Your task to perform on an android device: Open network settings Image 0: 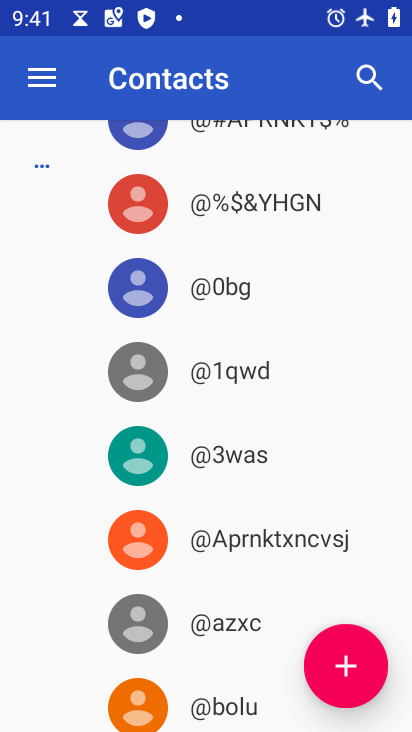
Step 0: press back button
Your task to perform on an android device: Open network settings Image 1: 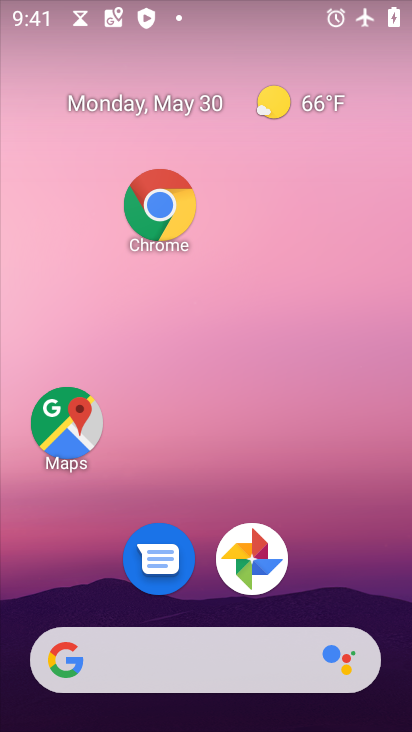
Step 1: drag from (249, 643) to (209, 61)
Your task to perform on an android device: Open network settings Image 2: 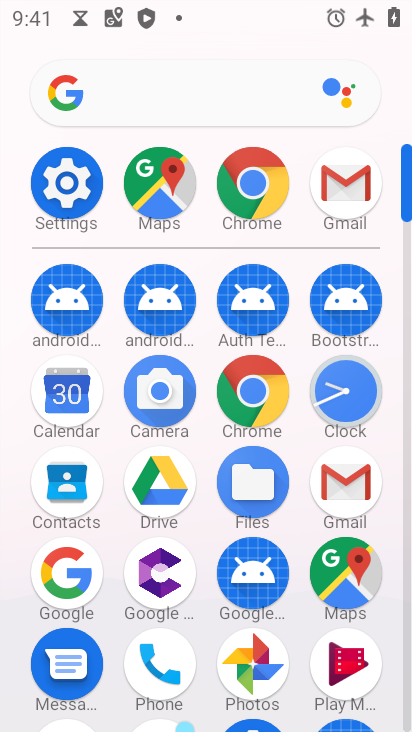
Step 2: click (67, 200)
Your task to perform on an android device: Open network settings Image 3: 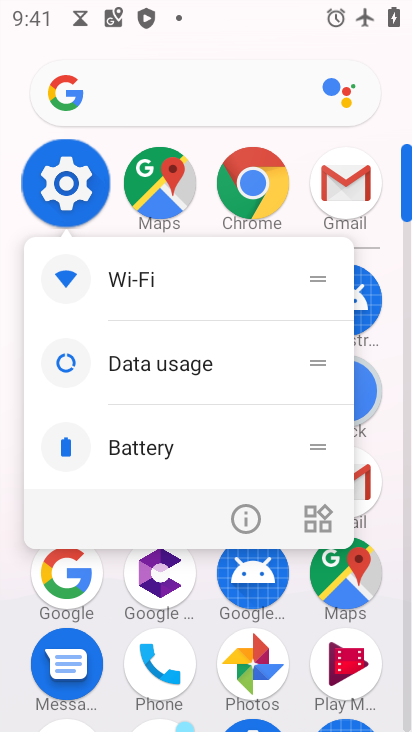
Step 3: click (70, 196)
Your task to perform on an android device: Open network settings Image 4: 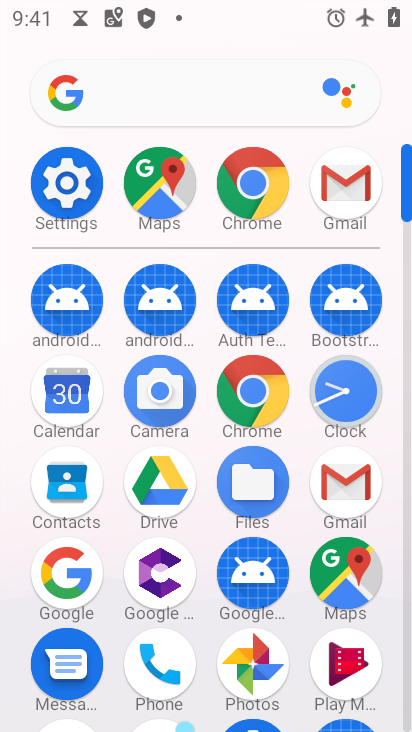
Step 4: click (71, 195)
Your task to perform on an android device: Open network settings Image 5: 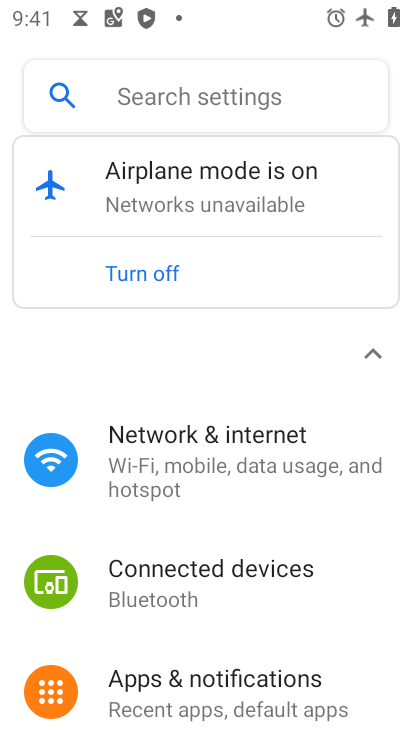
Step 5: click (211, 462)
Your task to perform on an android device: Open network settings Image 6: 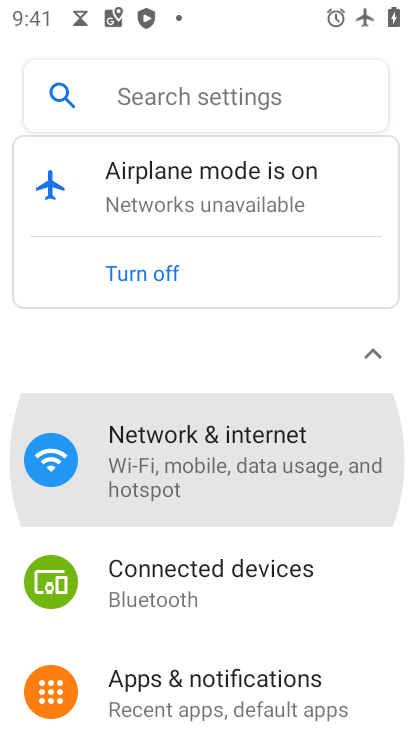
Step 6: click (211, 462)
Your task to perform on an android device: Open network settings Image 7: 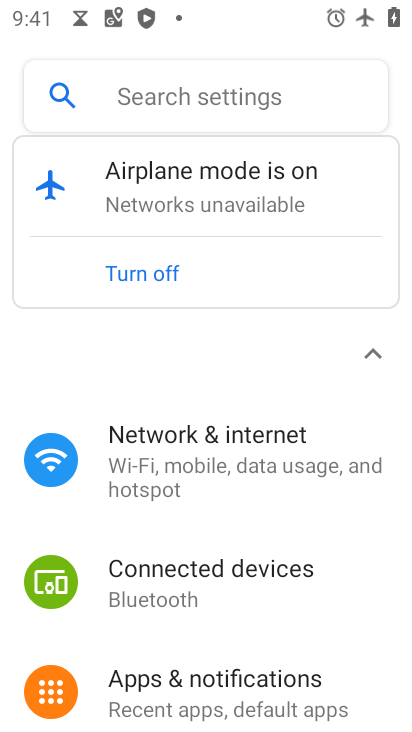
Step 7: click (218, 451)
Your task to perform on an android device: Open network settings Image 8: 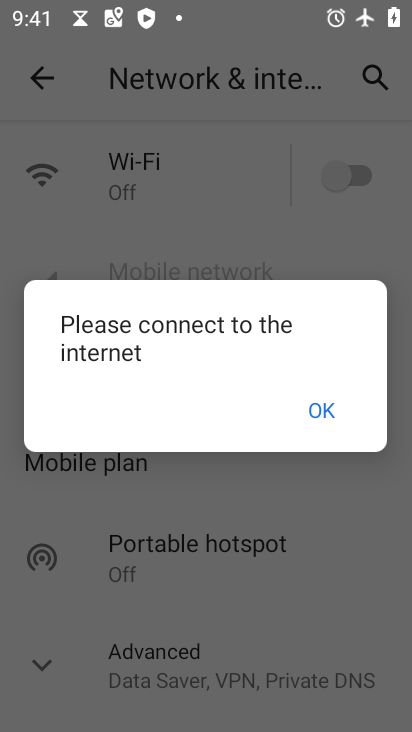
Step 8: click (316, 406)
Your task to perform on an android device: Open network settings Image 9: 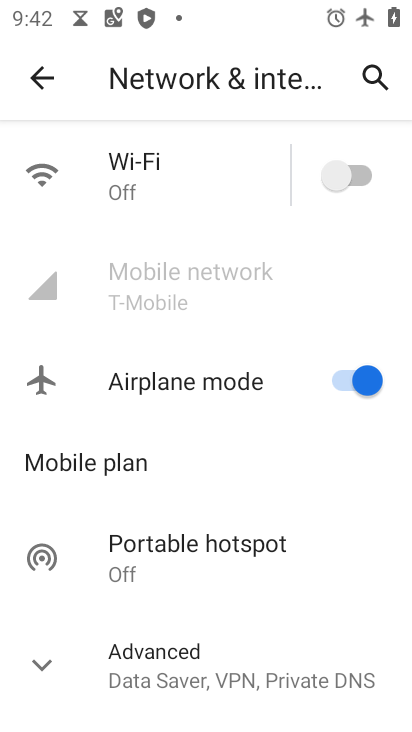
Step 9: click (329, 179)
Your task to perform on an android device: Open network settings Image 10: 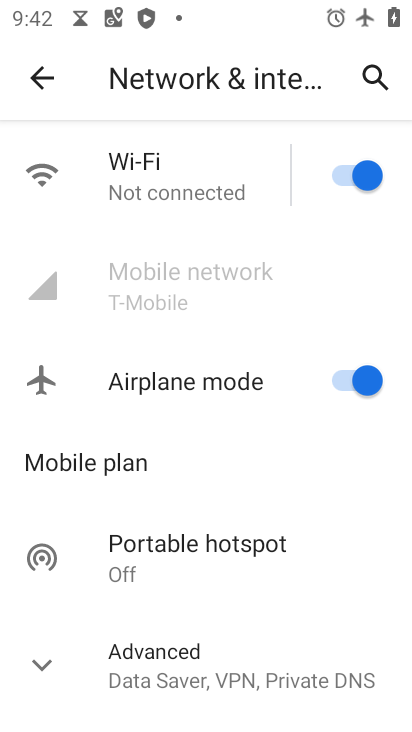
Step 10: click (372, 383)
Your task to perform on an android device: Open network settings Image 11: 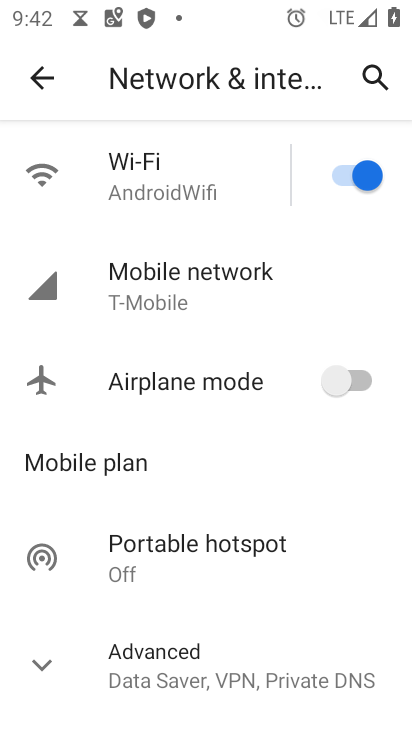
Step 11: click (148, 297)
Your task to perform on an android device: Open network settings Image 12: 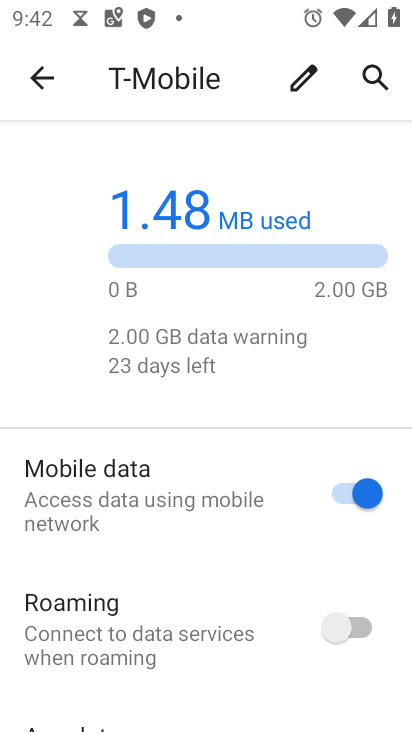
Step 12: click (41, 80)
Your task to perform on an android device: Open network settings Image 13: 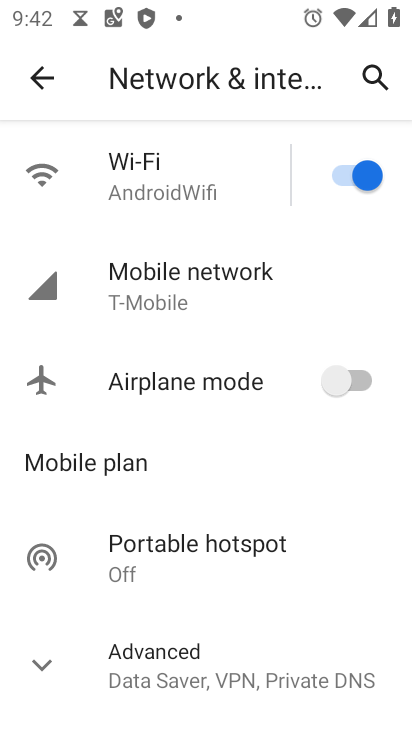
Step 13: task complete